Your task to perform on an android device: Open eBay Image 0: 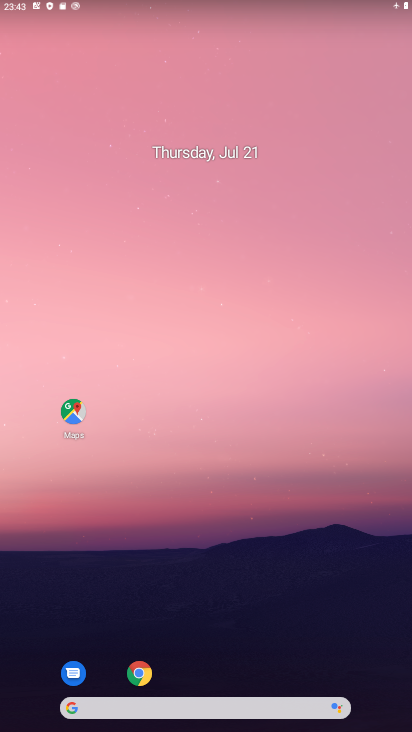
Step 0: click (146, 664)
Your task to perform on an android device: Open eBay Image 1: 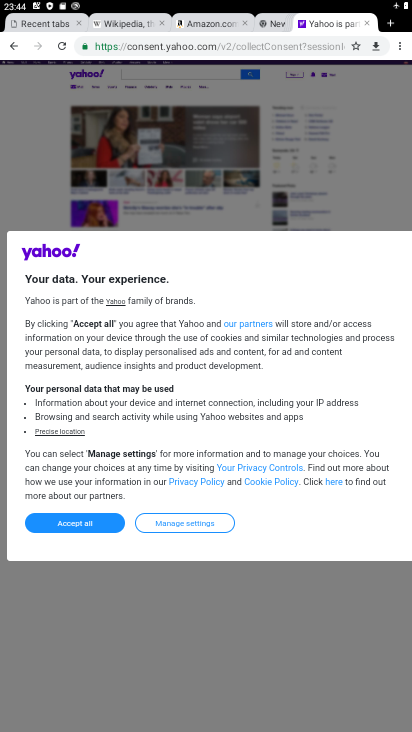
Step 1: click (392, 25)
Your task to perform on an android device: Open eBay Image 2: 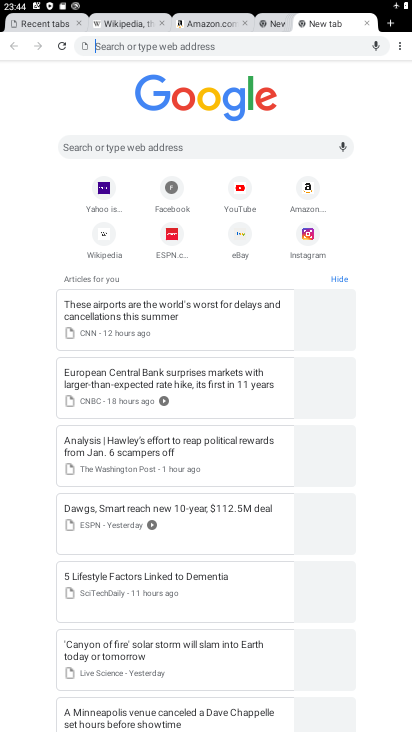
Step 2: click (235, 236)
Your task to perform on an android device: Open eBay Image 3: 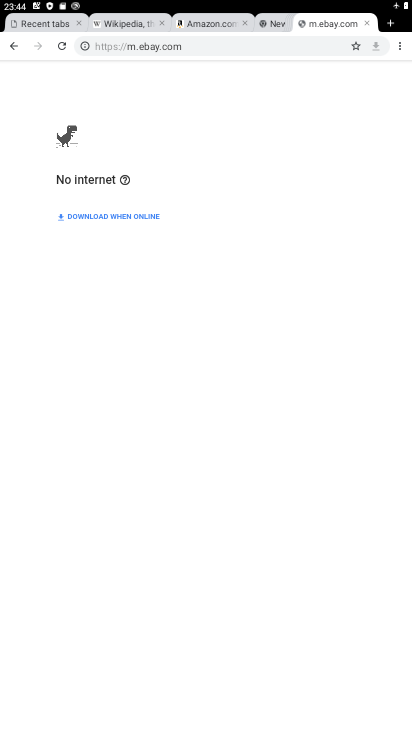
Step 3: task complete